Your task to perform on an android device: What's on my calendar today? Image 0: 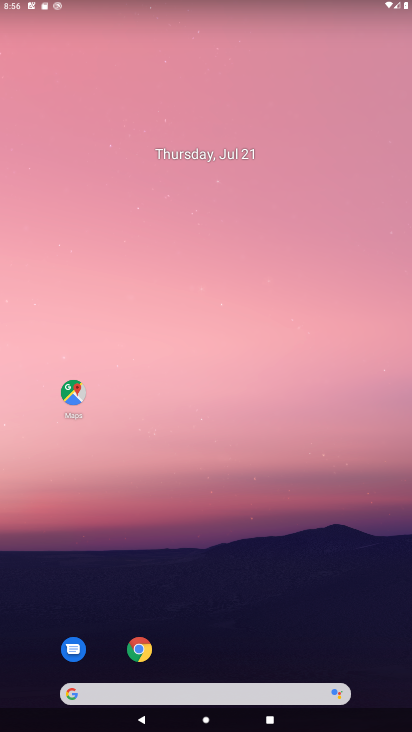
Step 0: drag from (219, 664) to (240, 98)
Your task to perform on an android device: What's on my calendar today? Image 1: 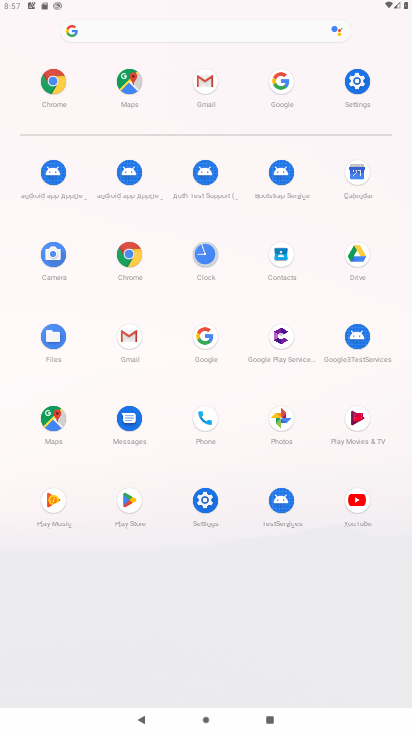
Step 1: click (362, 165)
Your task to perform on an android device: What's on my calendar today? Image 2: 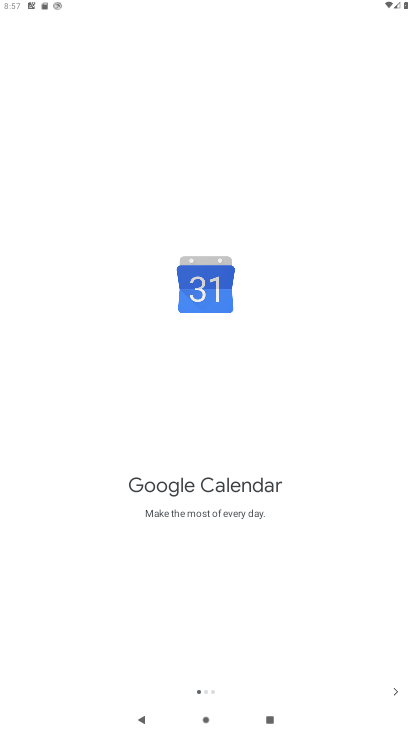
Step 2: click (395, 690)
Your task to perform on an android device: What's on my calendar today? Image 3: 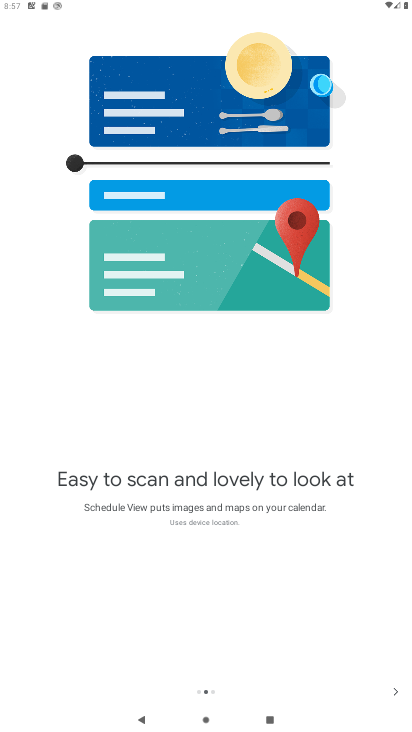
Step 3: click (394, 690)
Your task to perform on an android device: What's on my calendar today? Image 4: 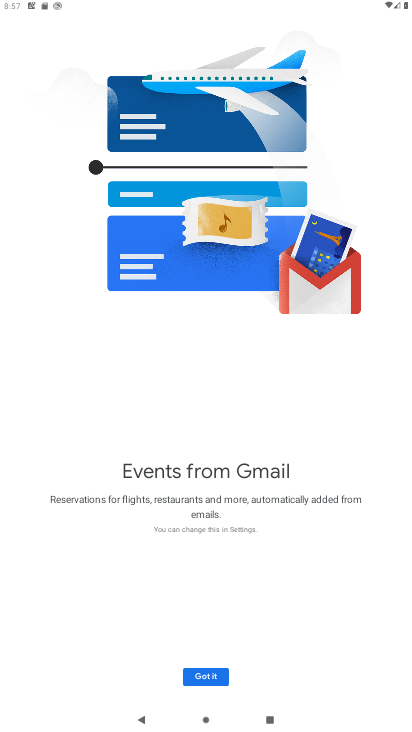
Step 4: click (201, 679)
Your task to perform on an android device: What's on my calendar today? Image 5: 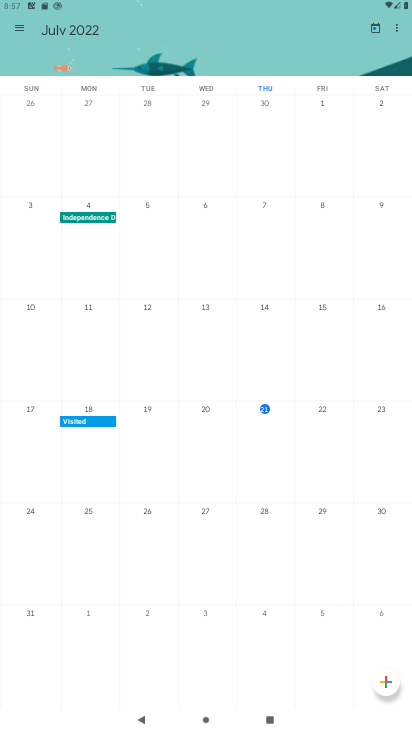
Step 5: click (259, 412)
Your task to perform on an android device: What's on my calendar today? Image 6: 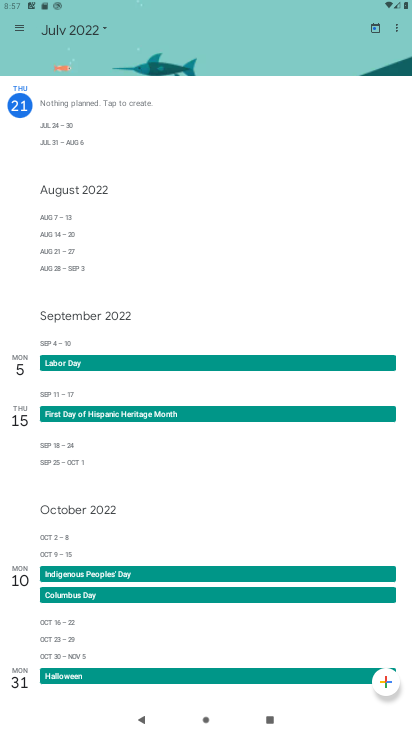
Step 6: task complete